Your task to perform on an android device: Open settings Image 0: 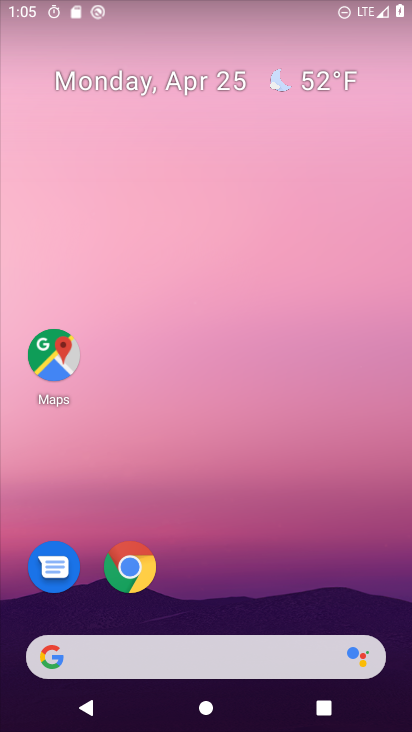
Step 0: drag from (270, 589) to (316, 83)
Your task to perform on an android device: Open settings Image 1: 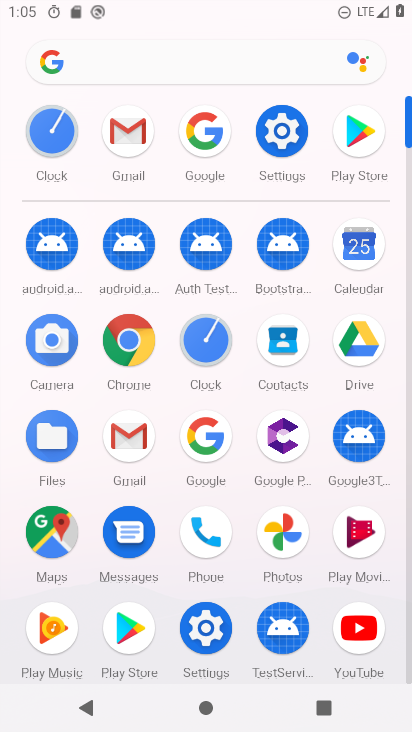
Step 1: click (291, 129)
Your task to perform on an android device: Open settings Image 2: 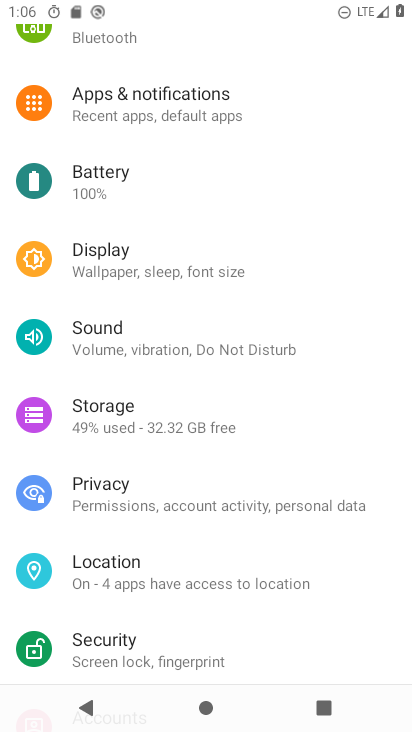
Step 2: task complete